Your task to perform on an android device: manage bookmarks in the chrome app Image 0: 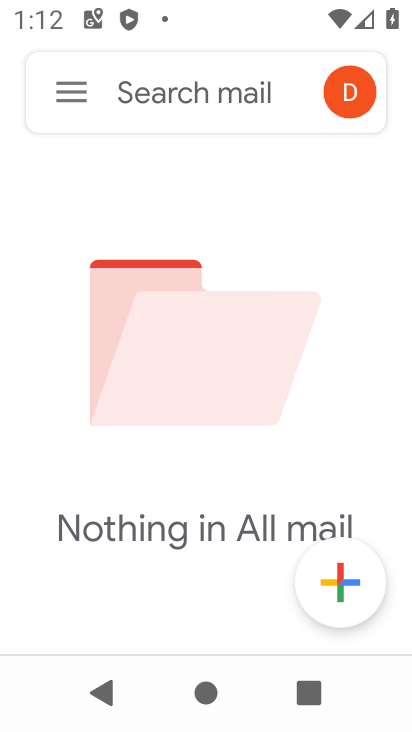
Step 0: press home button
Your task to perform on an android device: manage bookmarks in the chrome app Image 1: 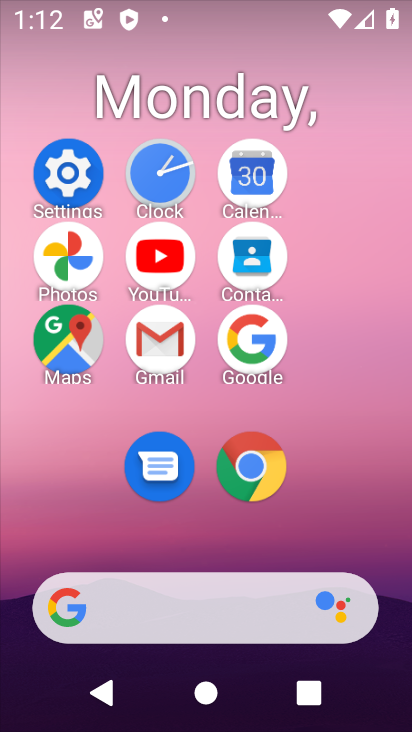
Step 1: click (247, 447)
Your task to perform on an android device: manage bookmarks in the chrome app Image 2: 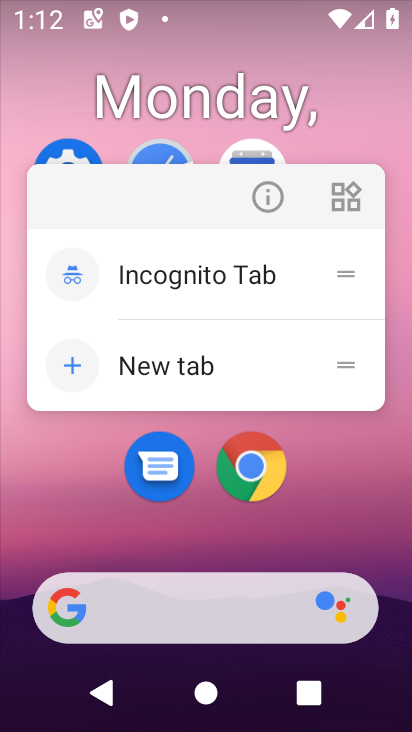
Step 2: click (248, 455)
Your task to perform on an android device: manage bookmarks in the chrome app Image 3: 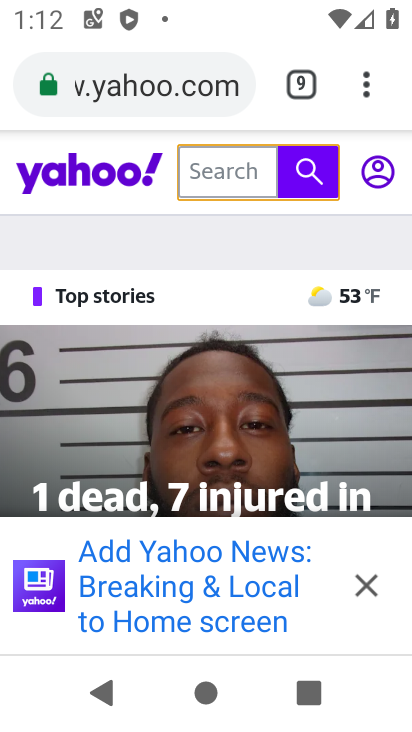
Step 3: click (369, 77)
Your task to perform on an android device: manage bookmarks in the chrome app Image 4: 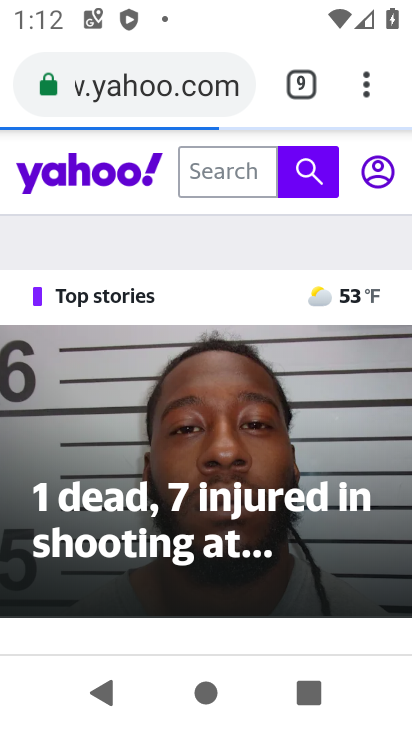
Step 4: click (381, 88)
Your task to perform on an android device: manage bookmarks in the chrome app Image 5: 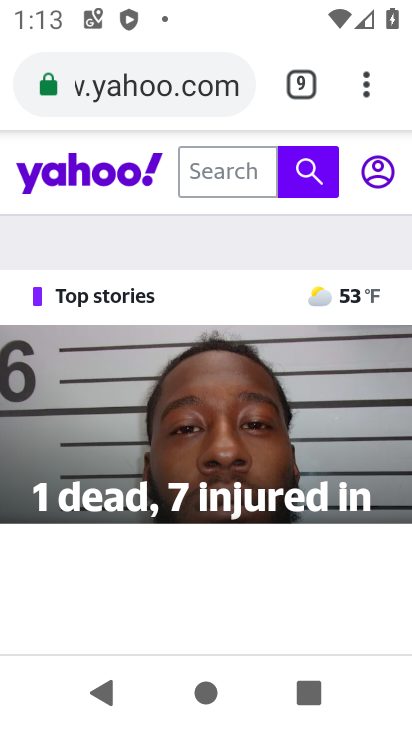
Step 5: click (357, 70)
Your task to perform on an android device: manage bookmarks in the chrome app Image 6: 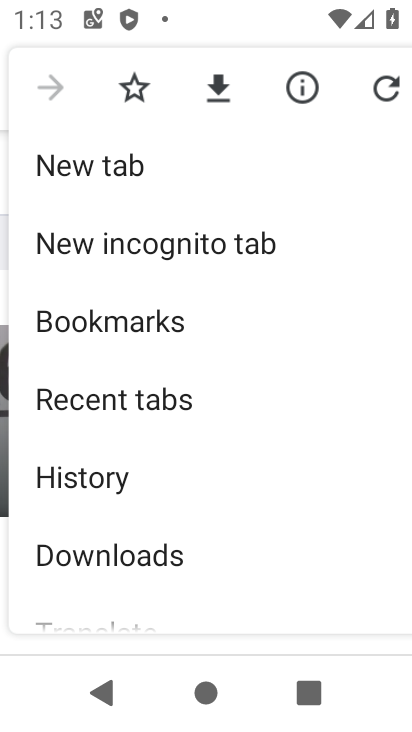
Step 6: click (202, 333)
Your task to perform on an android device: manage bookmarks in the chrome app Image 7: 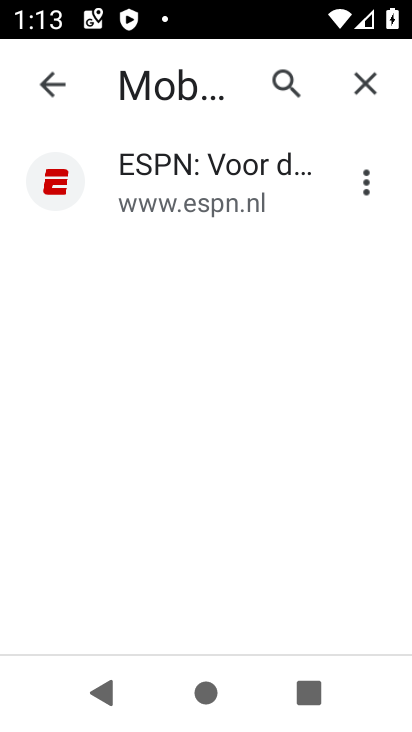
Step 7: click (368, 184)
Your task to perform on an android device: manage bookmarks in the chrome app Image 8: 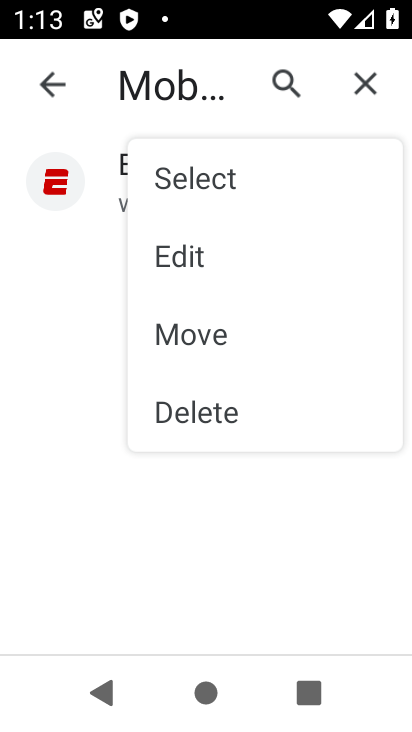
Step 8: click (195, 416)
Your task to perform on an android device: manage bookmarks in the chrome app Image 9: 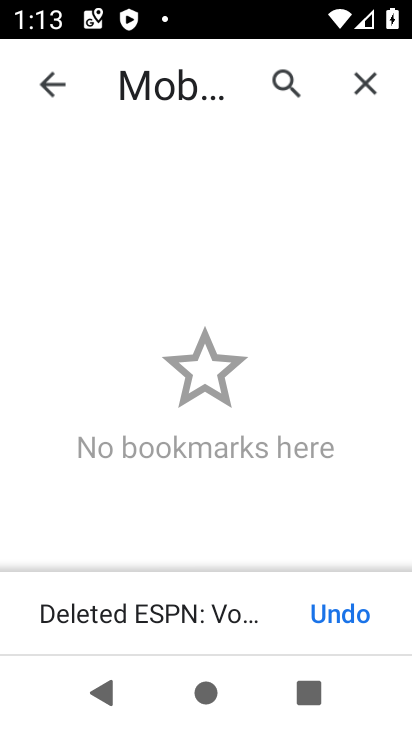
Step 9: task complete